Your task to perform on an android device: open app "Life360: Find Family & Friends" Image 0: 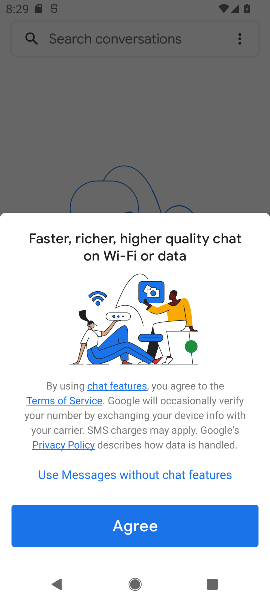
Step 0: click (131, 524)
Your task to perform on an android device: open app "Life360: Find Family & Friends" Image 1: 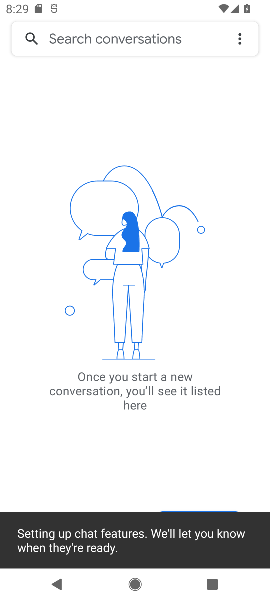
Step 1: press home button
Your task to perform on an android device: open app "Life360: Find Family & Friends" Image 2: 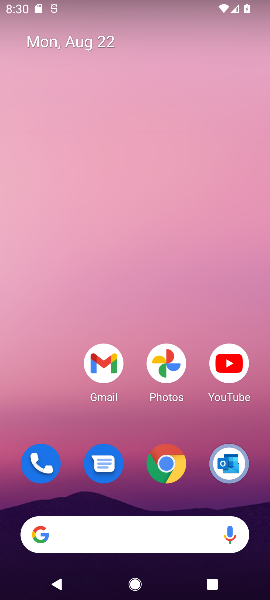
Step 2: drag from (129, 328) to (118, 94)
Your task to perform on an android device: open app "Life360: Find Family & Friends" Image 3: 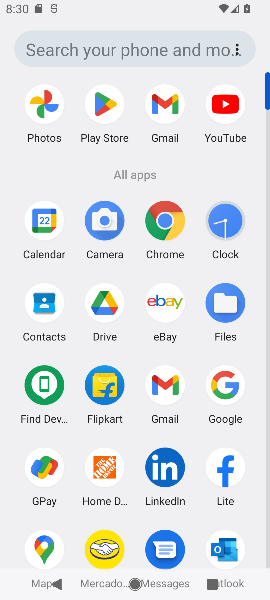
Step 3: click (100, 99)
Your task to perform on an android device: open app "Life360: Find Family & Friends" Image 4: 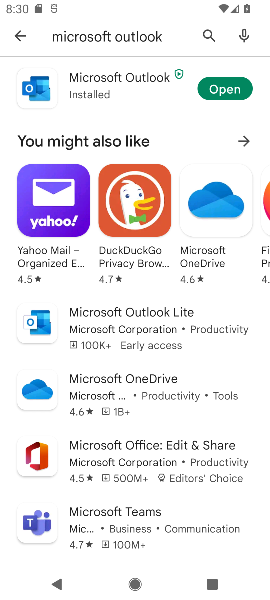
Step 4: click (20, 37)
Your task to perform on an android device: open app "Life360: Find Family & Friends" Image 5: 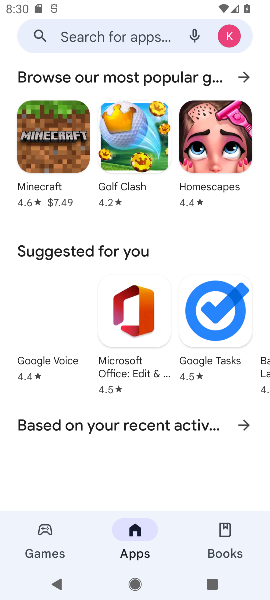
Step 5: click (135, 32)
Your task to perform on an android device: open app "Life360: Find Family & Friends" Image 6: 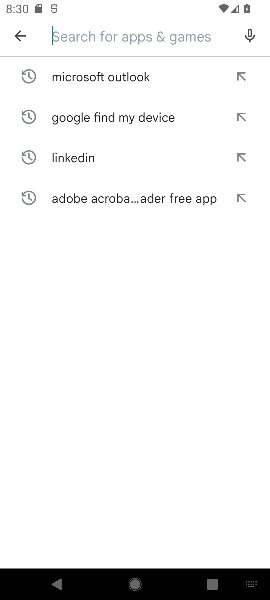
Step 6: type "Life360"
Your task to perform on an android device: open app "Life360: Find Family & Friends" Image 7: 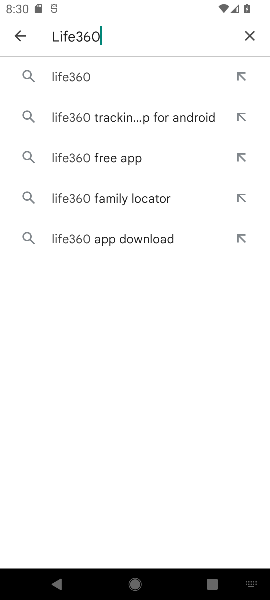
Step 7: click (76, 67)
Your task to perform on an android device: open app "Life360: Find Family & Friends" Image 8: 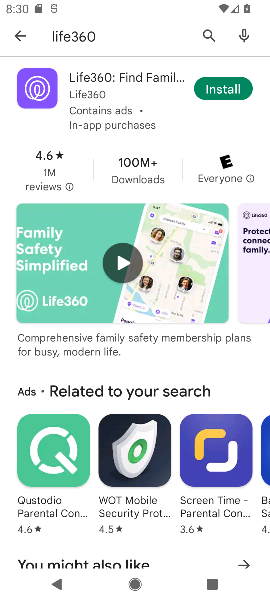
Step 8: click (229, 94)
Your task to perform on an android device: open app "Life360: Find Family & Friends" Image 9: 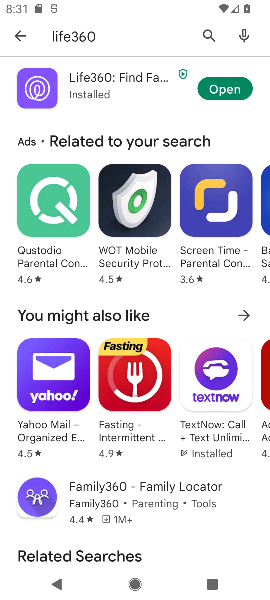
Step 9: click (229, 94)
Your task to perform on an android device: open app "Life360: Find Family & Friends" Image 10: 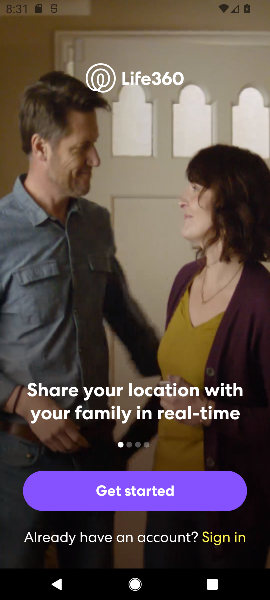
Step 10: task complete